Your task to perform on an android device: Open the map Image 0: 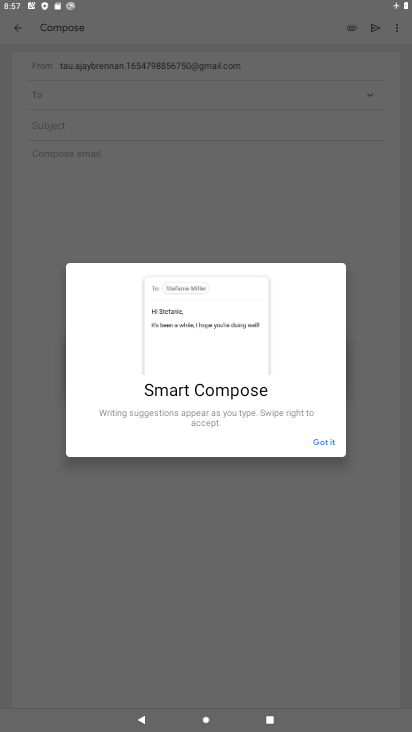
Step 0: press home button
Your task to perform on an android device: Open the map Image 1: 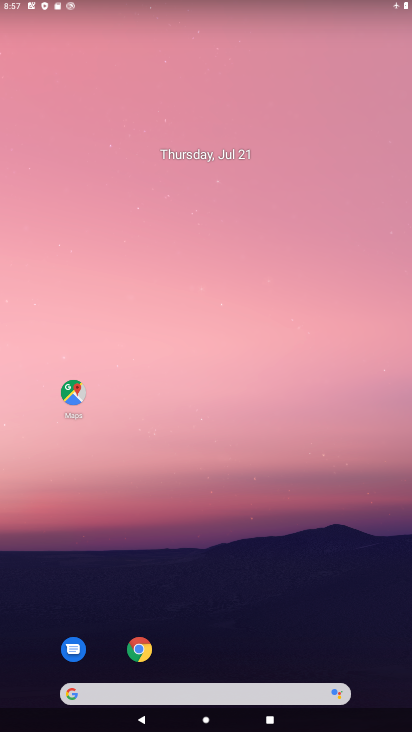
Step 1: click (79, 385)
Your task to perform on an android device: Open the map Image 2: 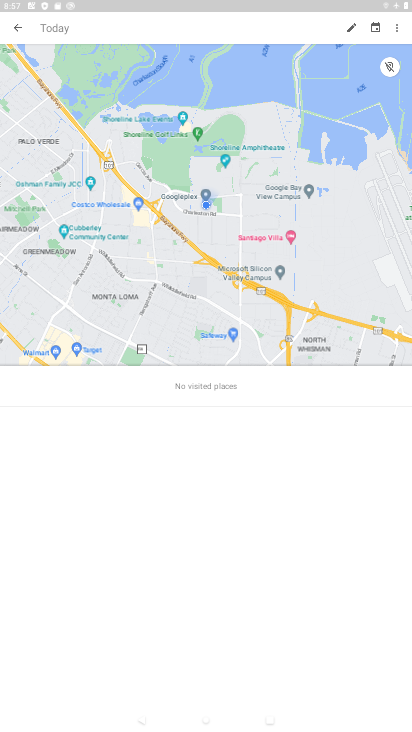
Step 2: click (12, 20)
Your task to perform on an android device: Open the map Image 3: 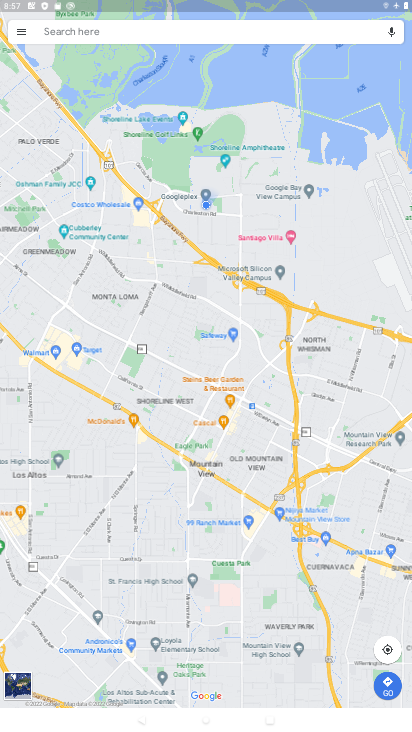
Step 3: task complete